Your task to perform on an android device: turn notification dots off Image 0: 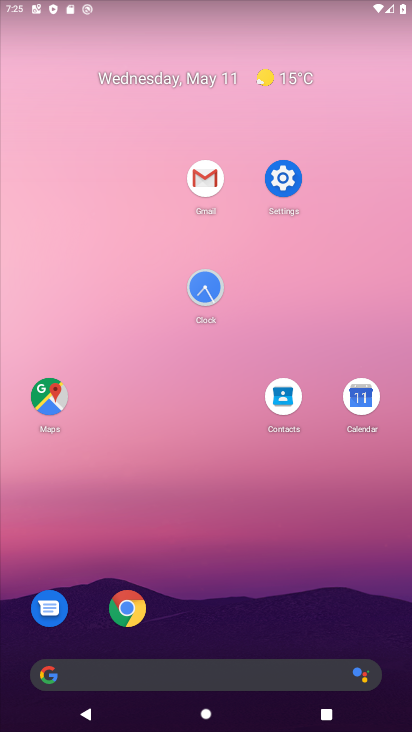
Step 0: drag from (222, 592) to (257, 217)
Your task to perform on an android device: turn notification dots off Image 1: 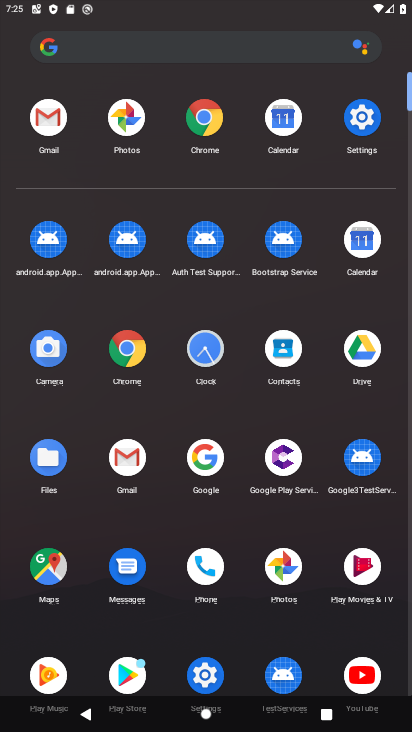
Step 1: click (379, 137)
Your task to perform on an android device: turn notification dots off Image 2: 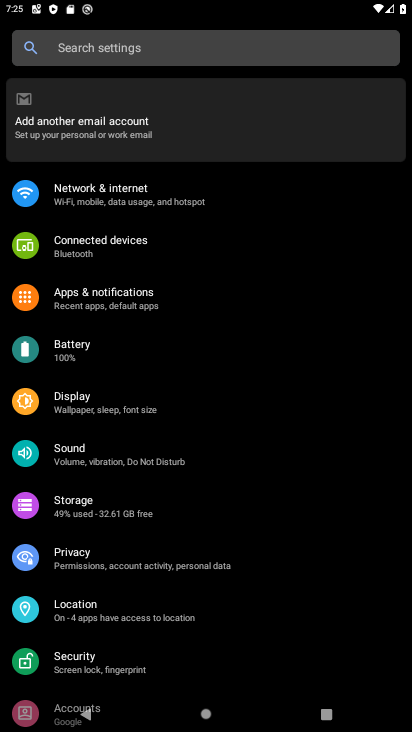
Step 2: click (203, 286)
Your task to perform on an android device: turn notification dots off Image 3: 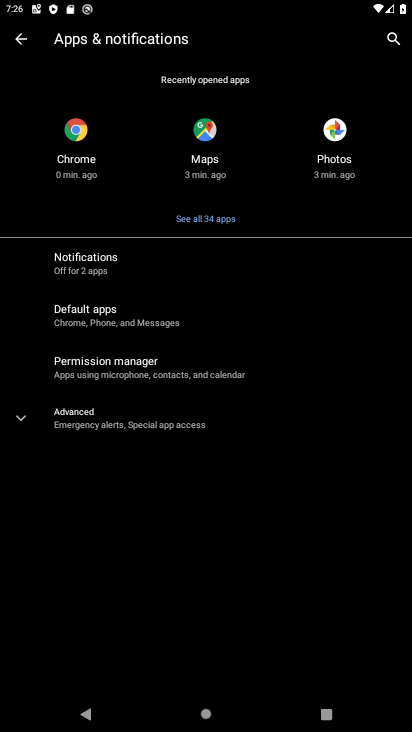
Step 3: click (149, 256)
Your task to perform on an android device: turn notification dots off Image 4: 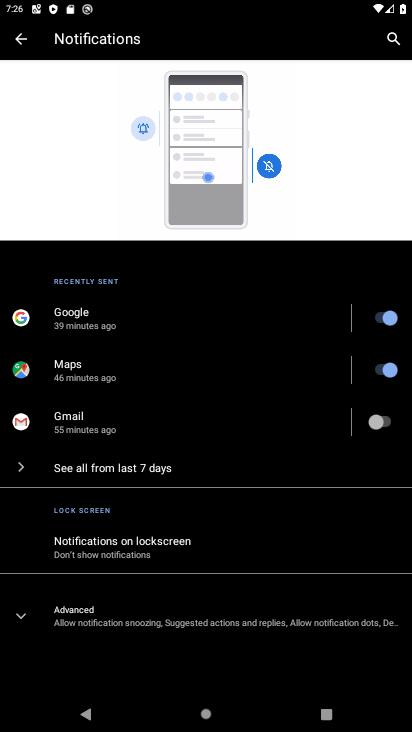
Step 4: click (165, 599)
Your task to perform on an android device: turn notification dots off Image 5: 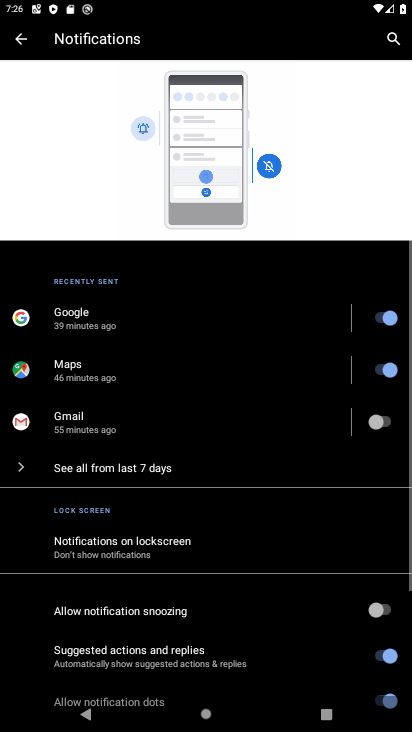
Step 5: drag from (229, 567) to (231, 358)
Your task to perform on an android device: turn notification dots off Image 6: 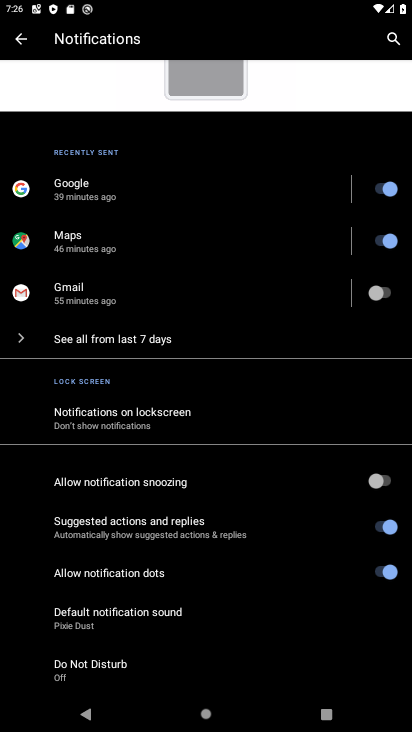
Step 6: click (390, 560)
Your task to perform on an android device: turn notification dots off Image 7: 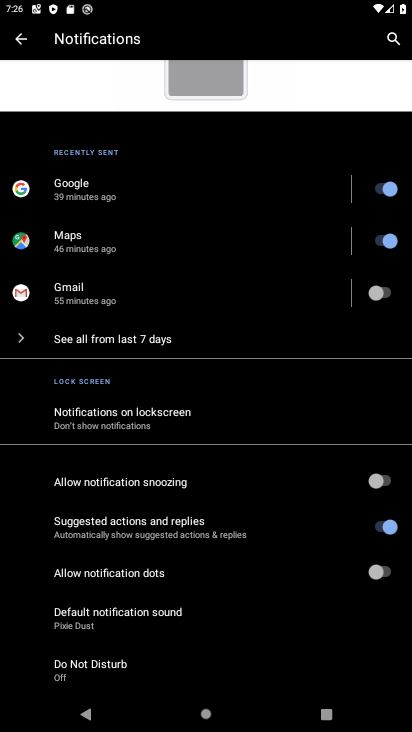
Step 7: task complete